Your task to perform on an android device: visit the assistant section in the google photos Image 0: 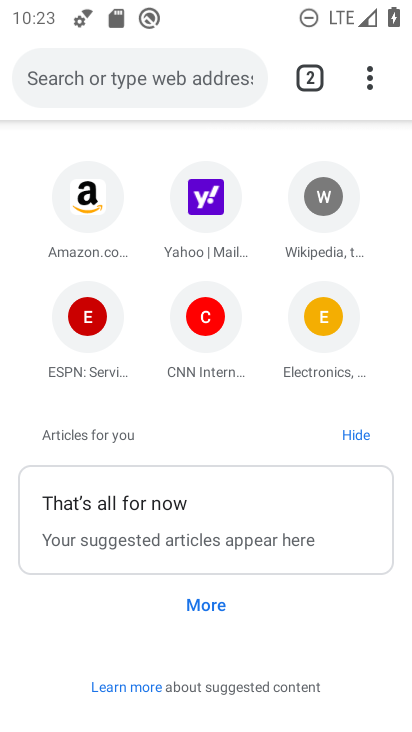
Step 0: press home button
Your task to perform on an android device: visit the assistant section in the google photos Image 1: 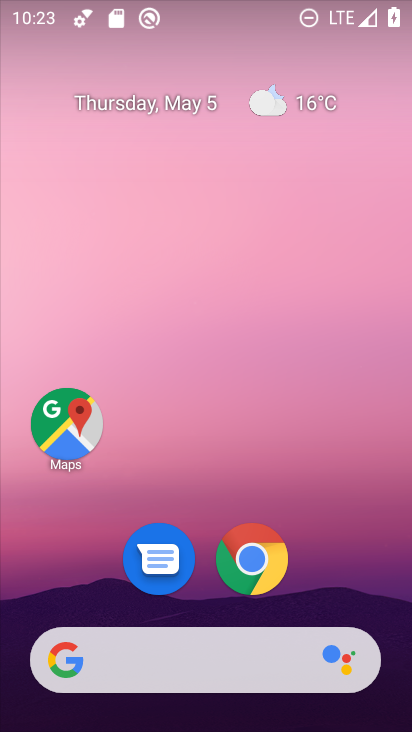
Step 1: drag from (387, 623) to (279, 117)
Your task to perform on an android device: visit the assistant section in the google photos Image 2: 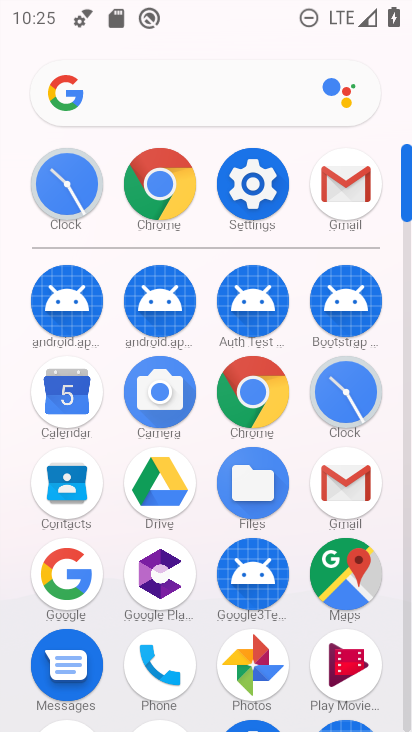
Step 2: click (267, 656)
Your task to perform on an android device: visit the assistant section in the google photos Image 3: 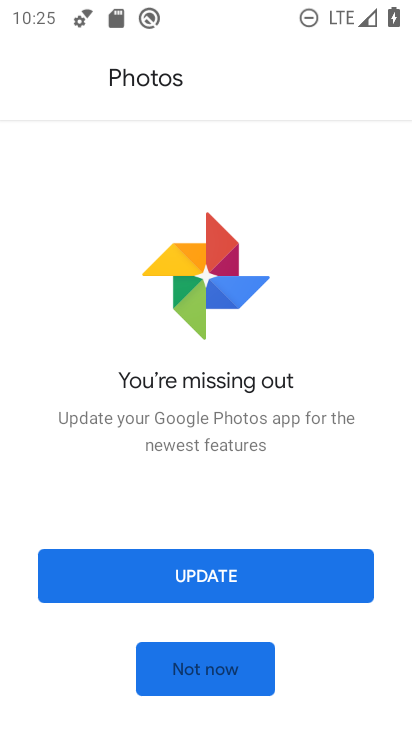
Step 3: click (177, 586)
Your task to perform on an android device: visit the assistant section in the google photos Image 4: 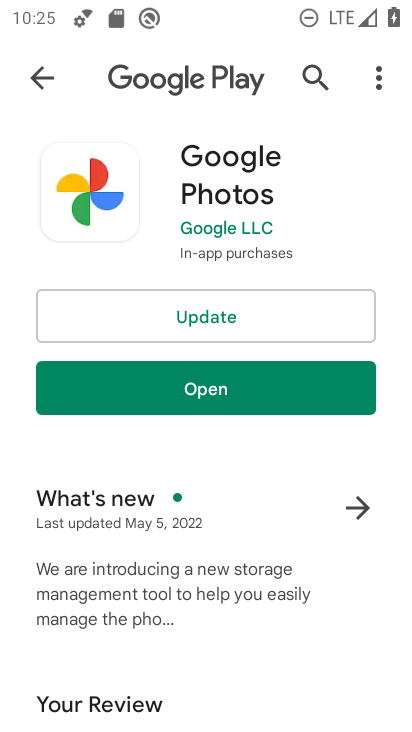
Step 4: click (239, 319)
Your task to perform on an android device: visit the assistant section in the google photos Image 5: 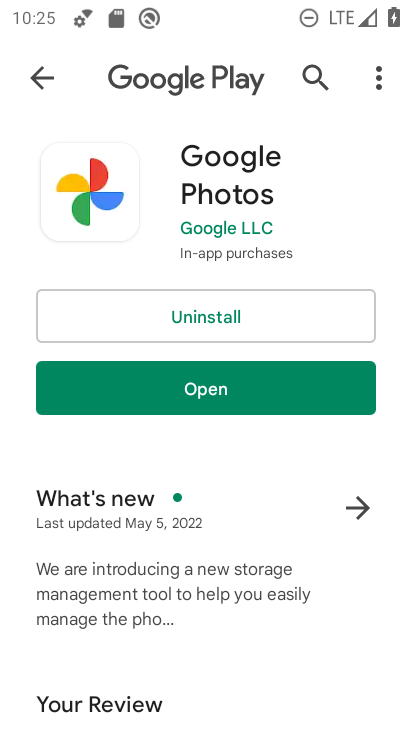
Step 5: click (228, 392)
Your task to perform on an android device: visit the assistant section in the google photos Image 6: 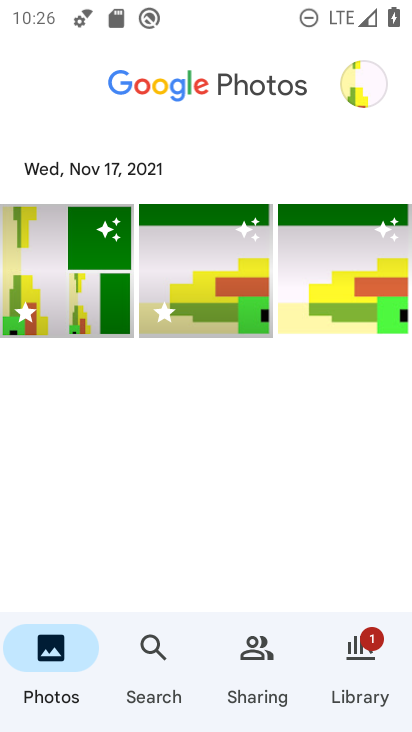
Step 6: task complete